Your task to perform on an android device: Go to privacy settings Image 0: 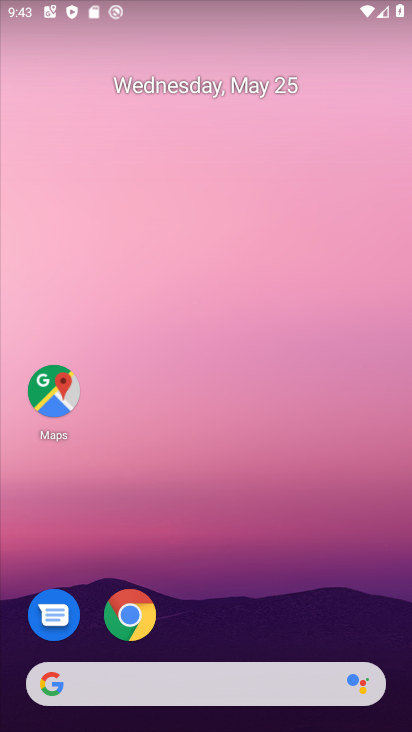
Step 0: drag from (256, 499) to (313, 44)
Your task to perform on an android device: Go to privacy settings Image 1: 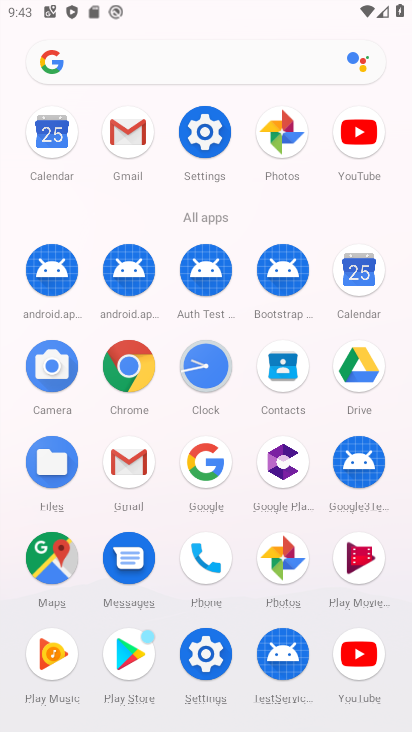
Step 1: click (216, 124)
Your task to perform on an android device: Go to privacy settings Image 2: 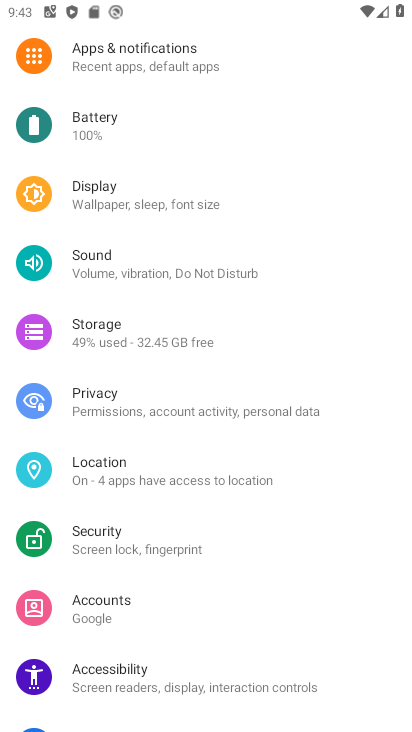
Step 2: click (198, 398)
Your task to perform on an android device: Go to privacy settings Image 3: 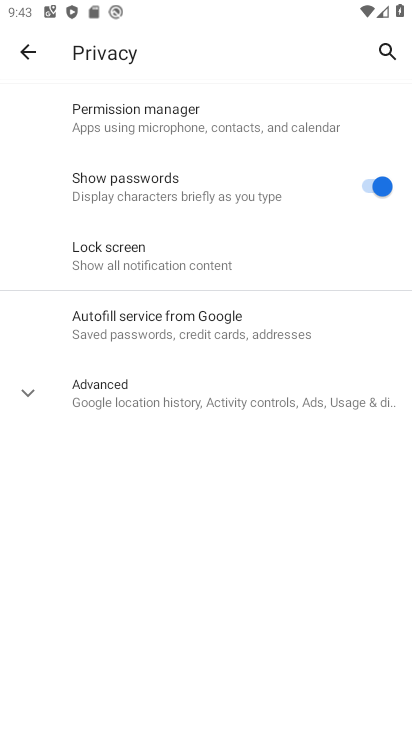
Step 3: task complete